Your task to perform on an android device: Go to CNN.com Image 0: 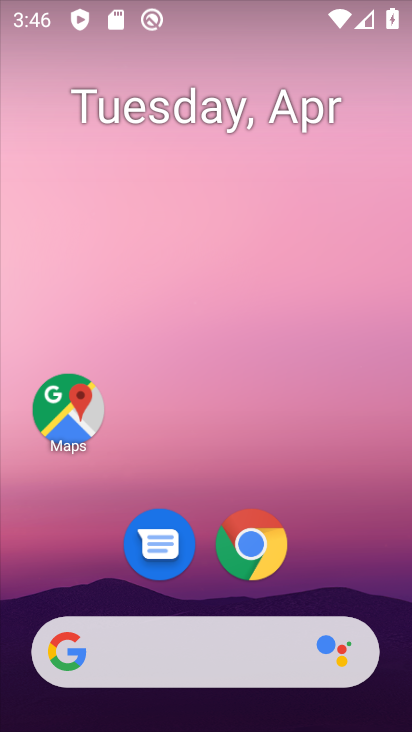
Step 0: drag from (190, 525) to (376, 10)
Your task to perform on an android device: Go to CNN.com Image 1: 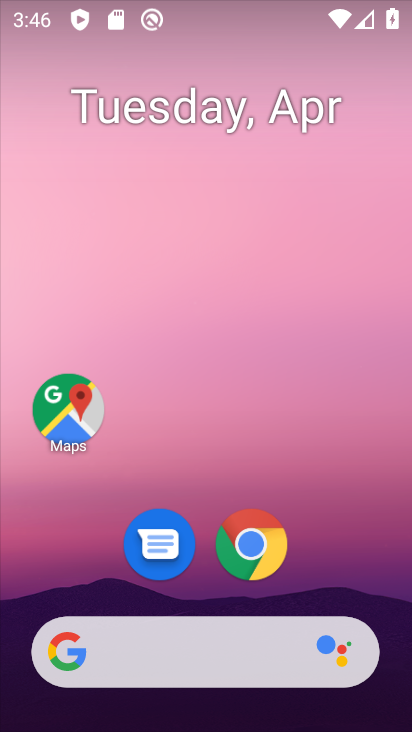
Step 1: click (244, 566)
Your task to perform on an android device: Go to CNN.com Image 2: 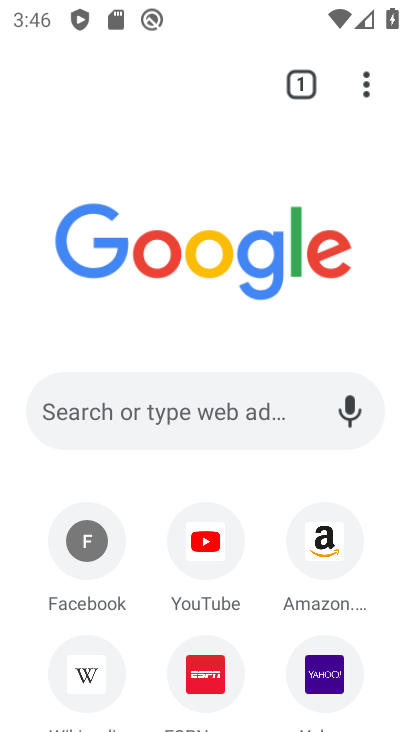
Step 2: click (192, 414)
Your task to perform on an android device: Go to CNN.com Image 3: 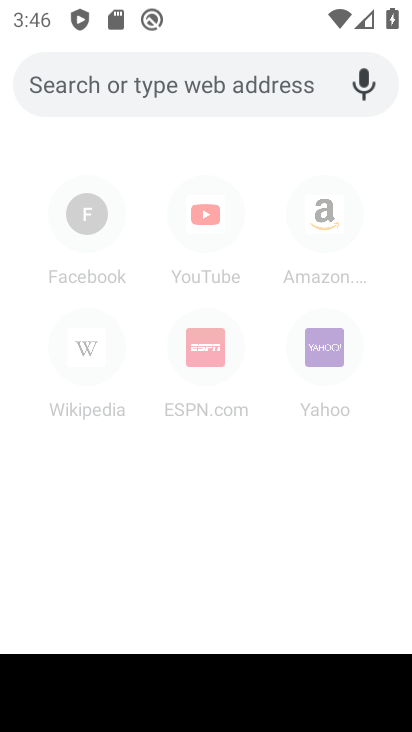
Step 3: type "CNN.com"
Your task to perform on an android device: Go to CNN.com Image 4: 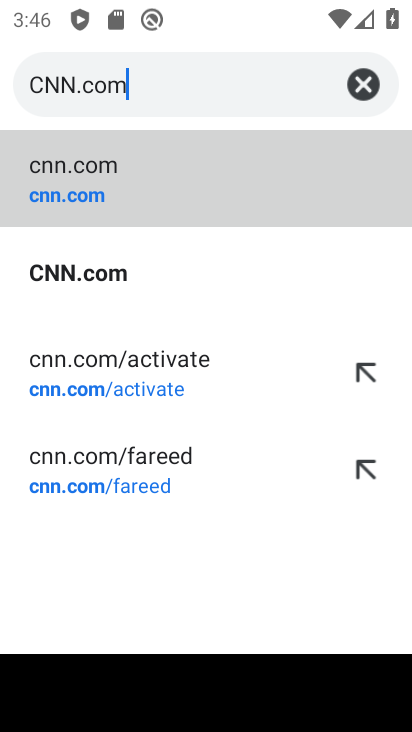
Step 4: click (131, 196)
Your task to perform on an android device: Go to CNN.com Image 5: 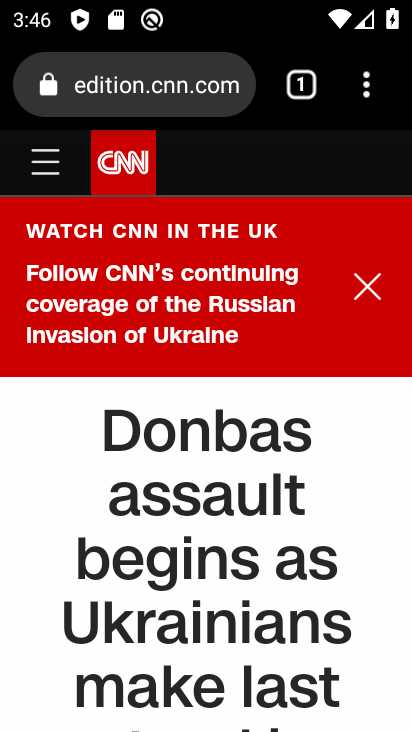
Step 5: task complete